Your task to perform on an android device: Go to Maps Image 0: 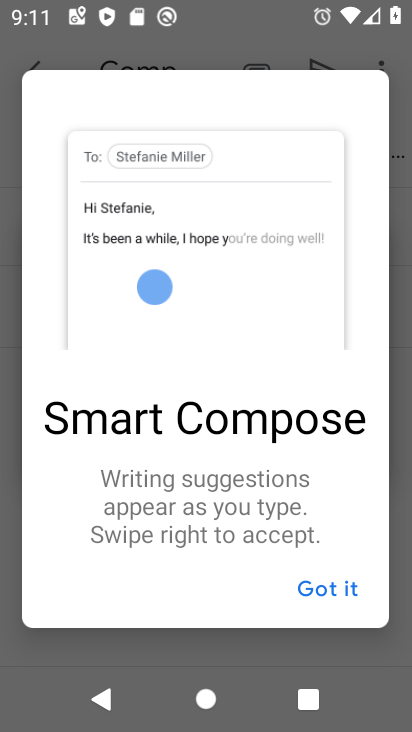
Step 0: press home button
Your task to perform on an android device: Go to Maps Image 1: 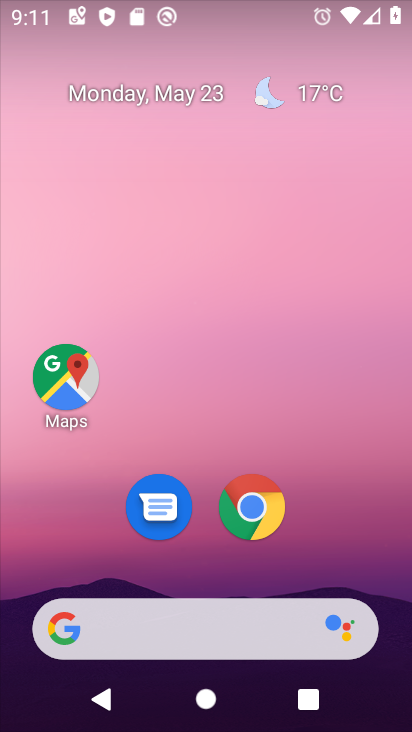
Step 1: click (57, 374)
Your task to perform on an android device: Go to Maps Image 2: 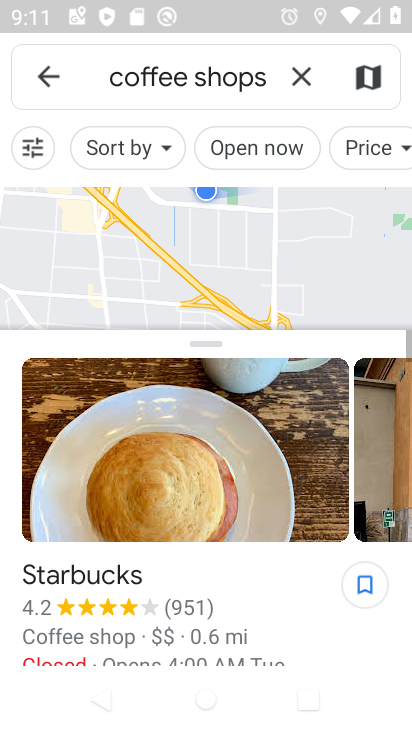
Step 2: task complete